Your task to perform on an android device: install app "Lyft - Rideshare, Bikes, Scooters & Transit" Image 0: 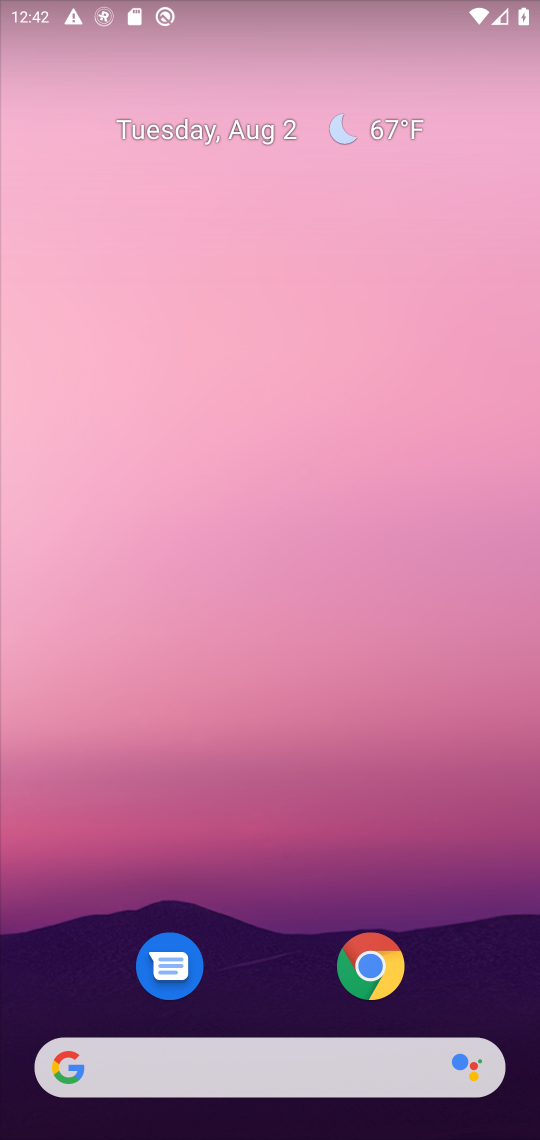
Step 0: press home button
Your task to perform on an android device: install app "Lyft - Rideshare, Bikes, Scooters & Transit" Image 1: 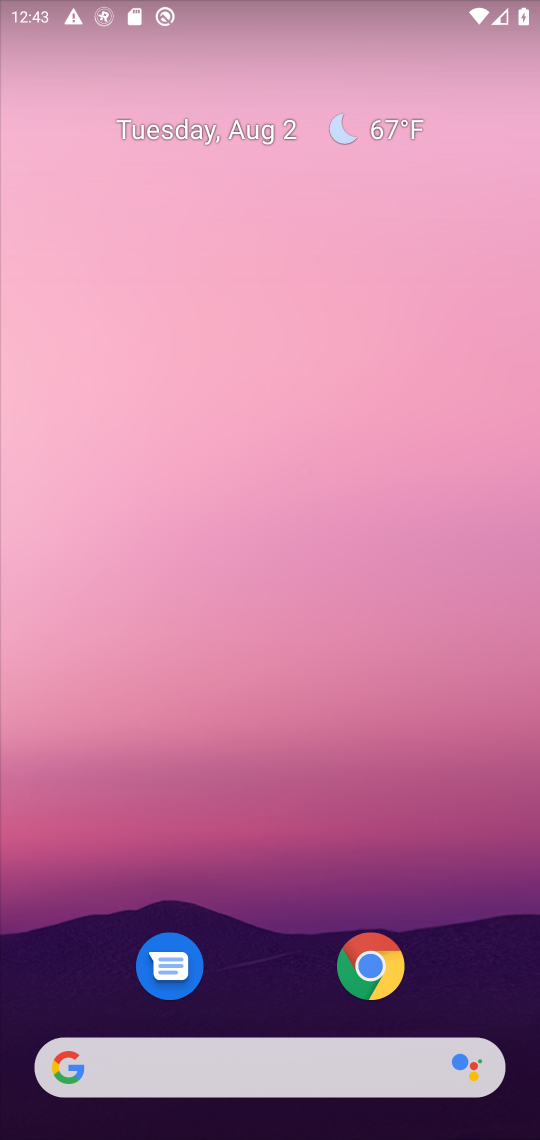
Step 1: drag from (262, 950) to (259, 91)
Your task to perform on an android device: install app "Lyft - Rideshare, Bikes, Scooters & Transit" Image 2: 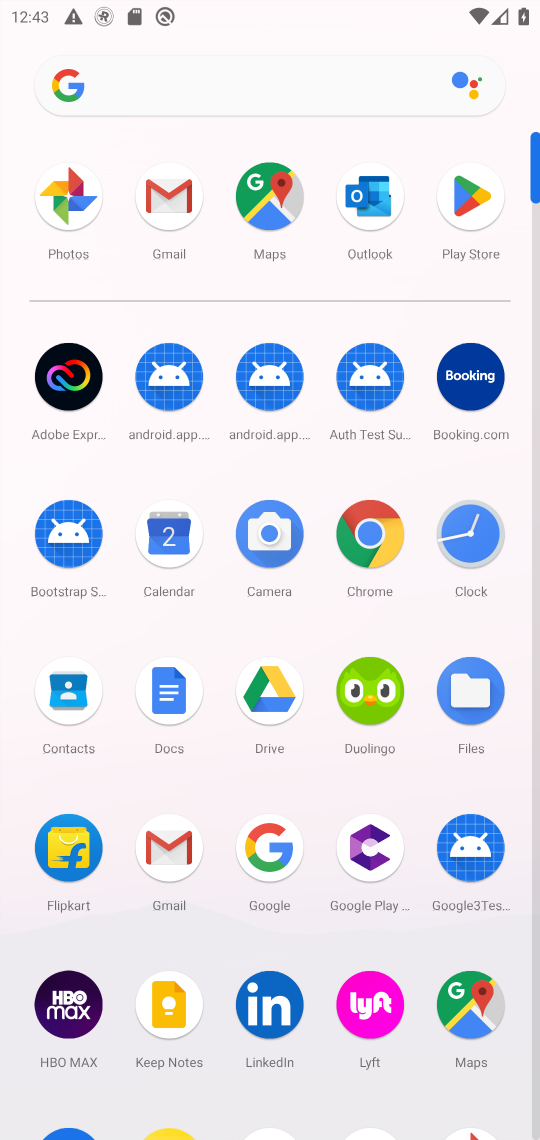
Step 2: click (460, 193)
Your task to perform on an android device: install app "Lyft - Rideshare, Bikes, Scooters & Transit" Image 3: 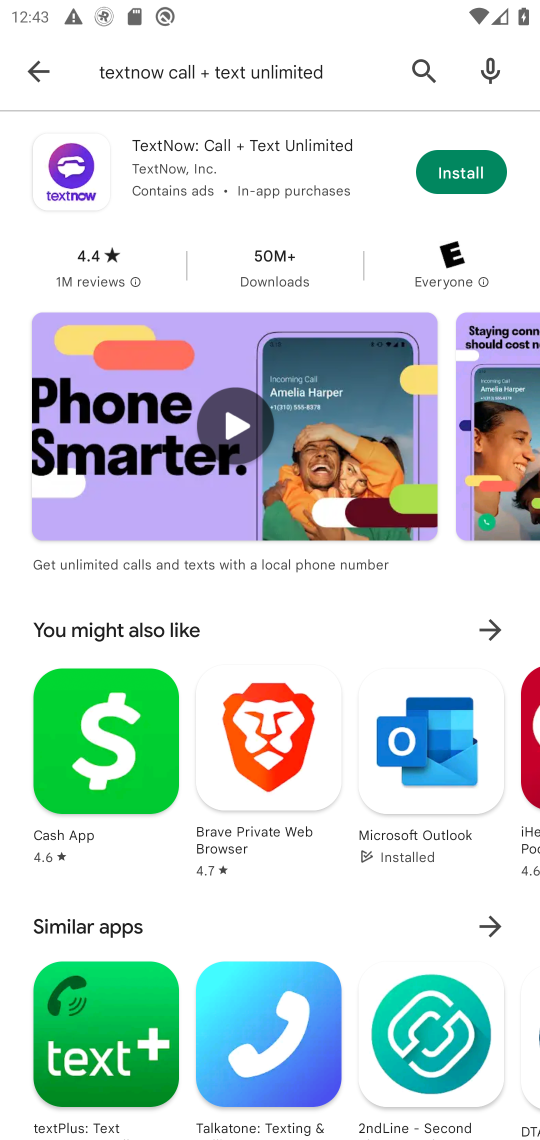
Step 3: click (424, 60)
Your task to perform on an android device: install app "Lyft - Rideshare, Bikes, Scooters & Transit" Image 4: 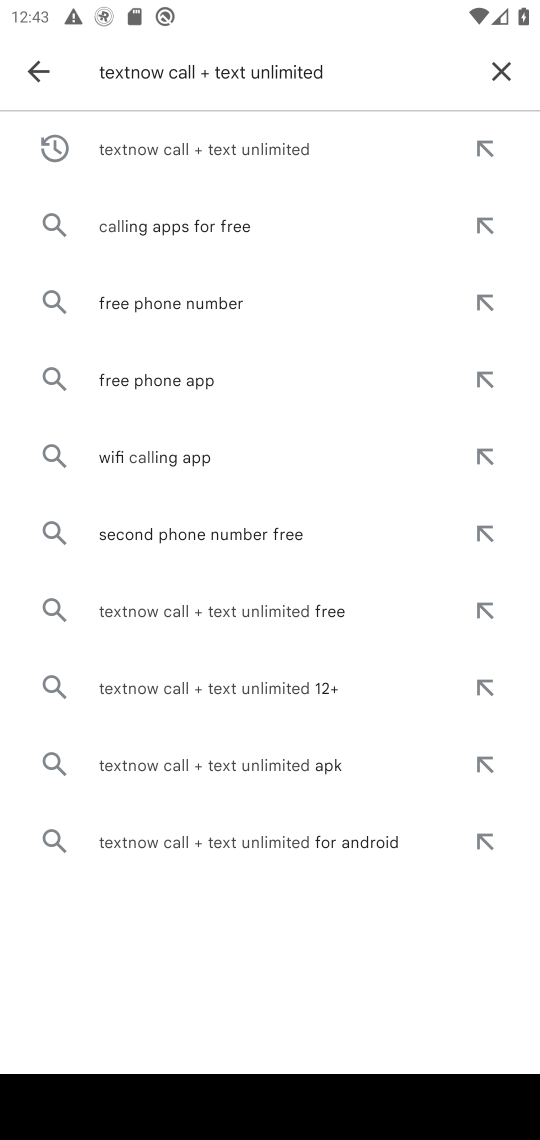
Step 4: click (488, 77)
Your task to perform on an android device: install app "Lyft - Rideshare, Bikes, Scooters & Transit" Image 5: 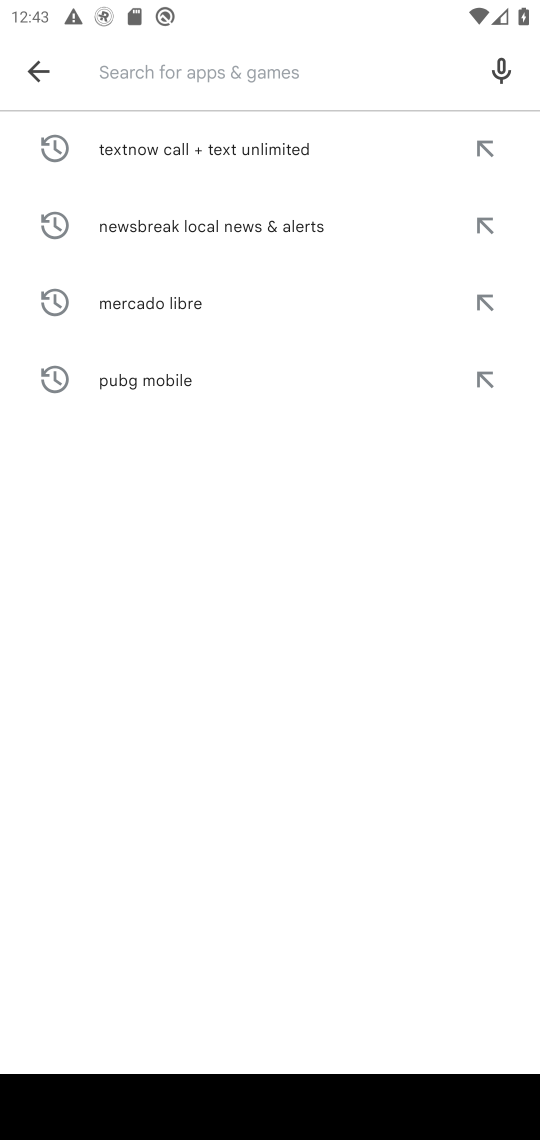
Step 5: click (382, 68)
Your task to perform on an android device: install app "Lyft - Rideshare, Bikes, Scooters & Transit" Image 6: 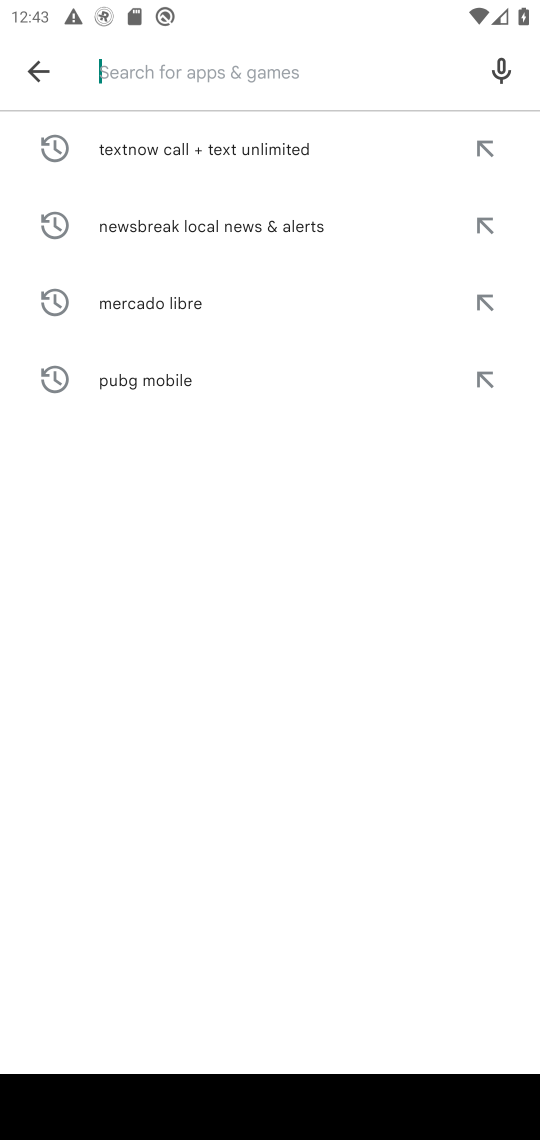
Step 6: type "Lyft - Rideshare, Bikes, Scooters & Transit"
Your task to perform on an android device: install app "Lyft - Rideshare, Bikes, Scooters & Transit" Image 7: 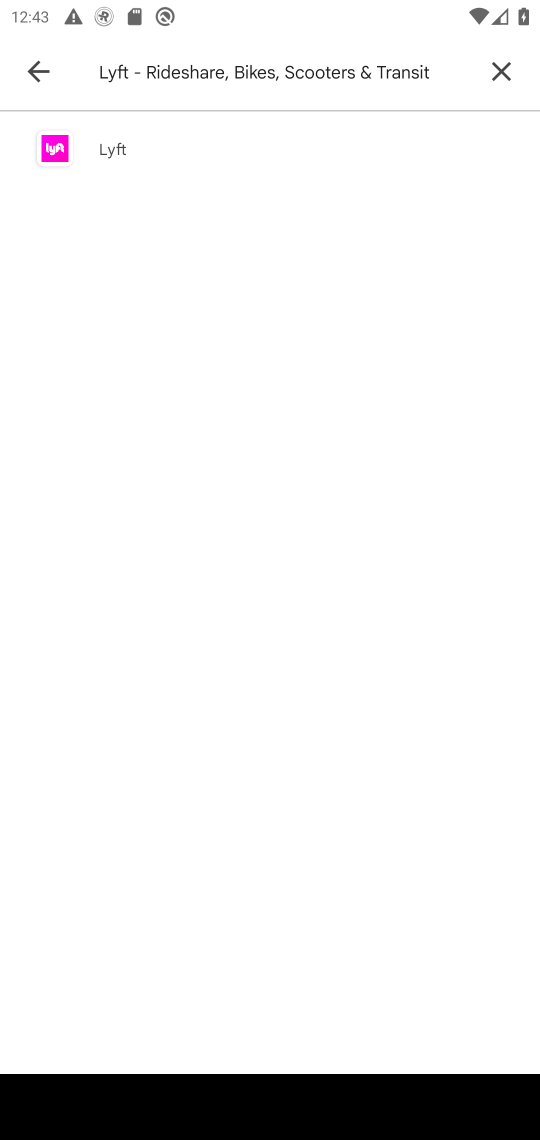
Step 7: click (93, 143)
Your task to perform on an android device: install app "Lyft - Rideshare, Bikes, Scooters & Transit" Image 8: 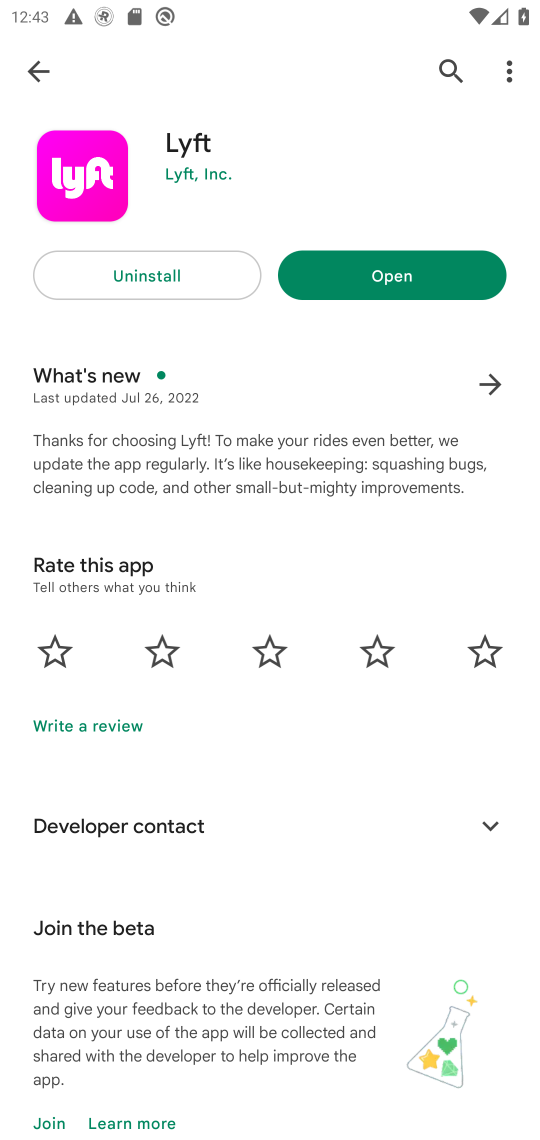
Step 8: task complete